Your task to perform on an android device: read, delete, or share a saved page in the chrome app Image 0: 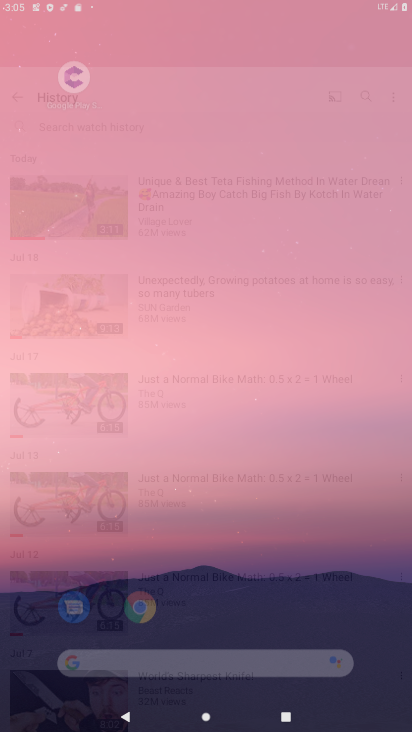
Step 0: click (354, 169)
Your task to perform on an android device: read, delete, or share a saved page in the chrome app Image 1: 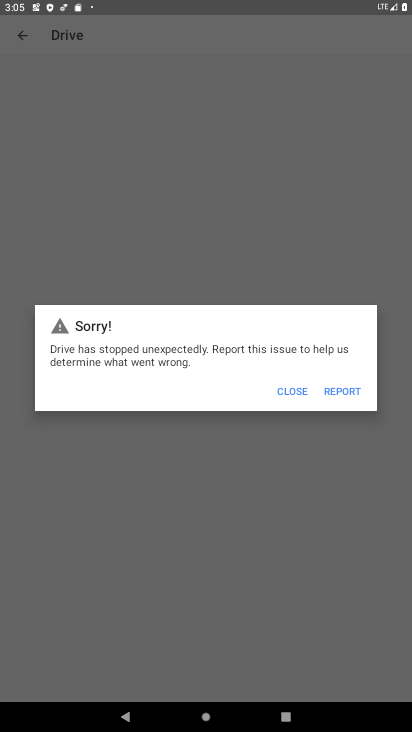
Step 1: press home button
Your task to perform on an android device: read, delete, or share a saved page in the chrome app Image 2: 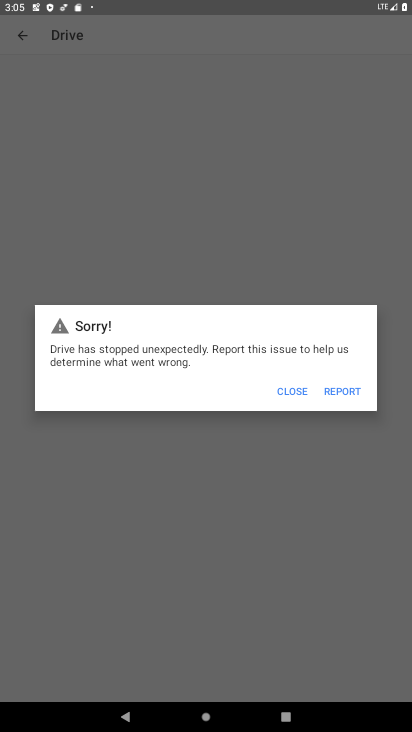
Step 2: press home button
Your task to perform on an android device: read, delete, or share a saved page in the chrome app Image 3: 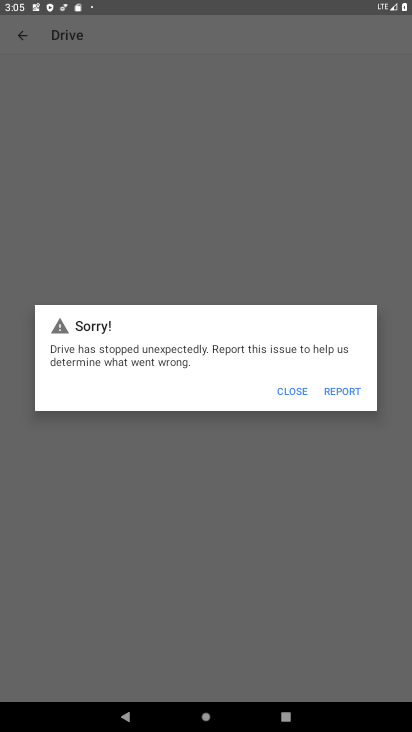
Step 3: drag from (254, 347) to (306, 184)
Your task to perform on an android device: read, delete, or share a saved page in the chrome app Image 4: 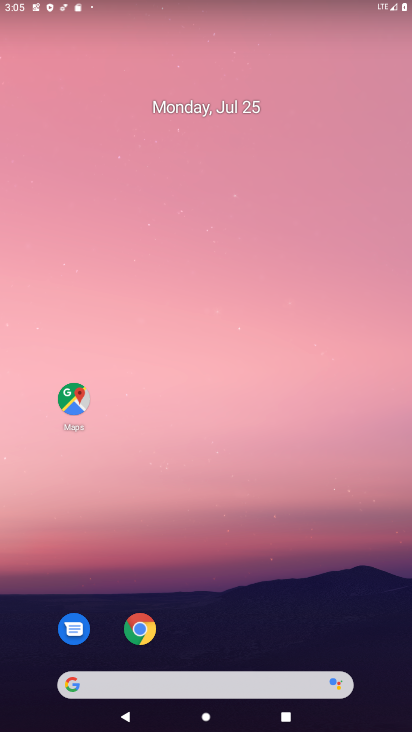
Step 4: drag from (172, 331) to (197, 28)
Your task to perform on an android device: read, delete, or share a saved page in the chrome app Image 5: 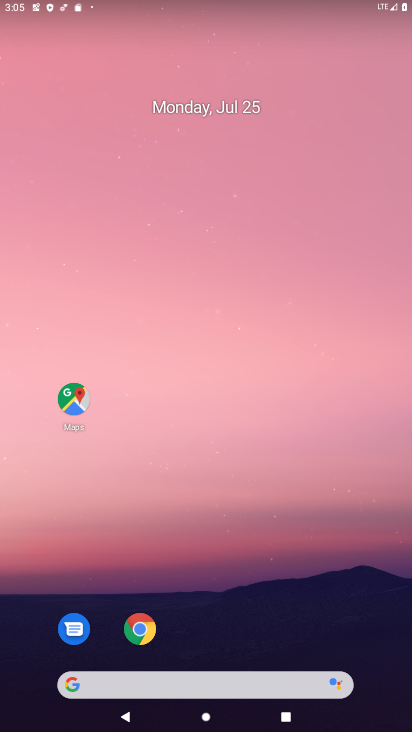
Step 5: drag from (198, 640) to (290, 18)
Your task to perform on an android device: read, delete, or share a saved page in the chrome app Image 6: 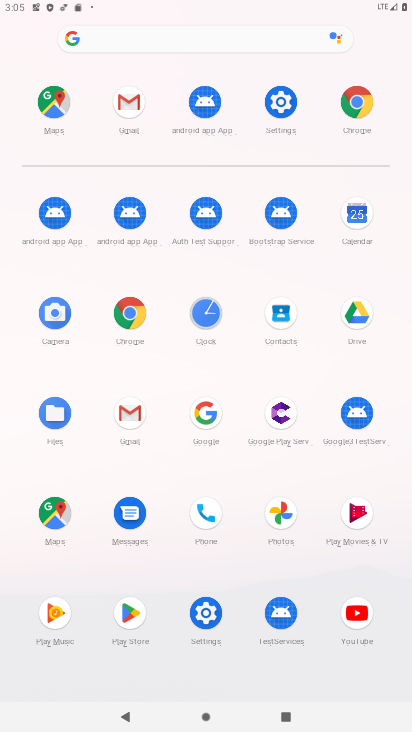
Step 6: click (128, 312)
Your task to perform on an android device: read, delete, or share a saved page in the chrome app Image 7: 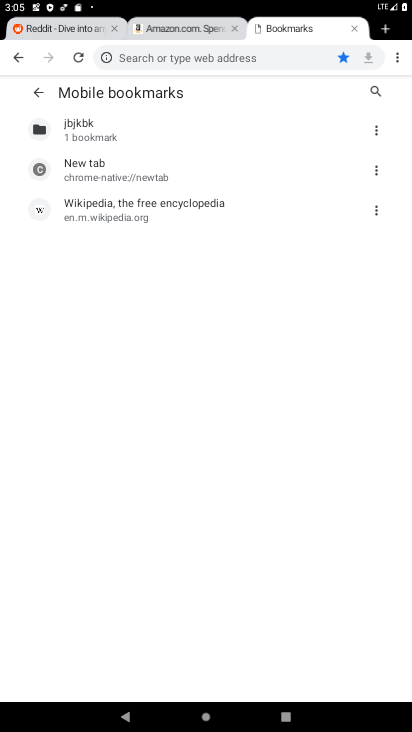
Step 7: drag from (395, 56) to (297, 211)
Your task to perform on an android device: read, delete, or share a saved page in the chrome app Image 8: 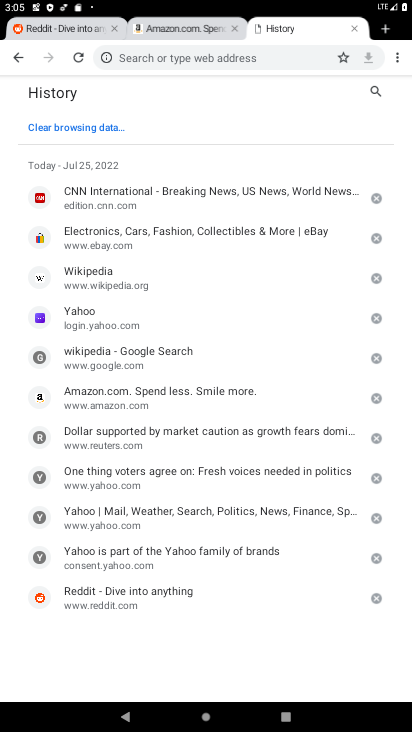
Step 8: drag from (190, 337) to (190, 192)
Your task to perform on an android device: read, delete, or share a saved page in the chrome app Image 9: 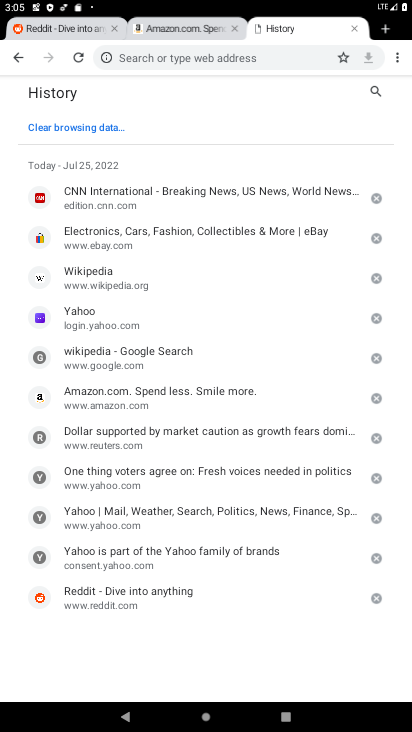
Step 9: drag from (394, 58) to (304, 155)
Your task to perform on an android device: read, delete, or share a saved page in the chrome app Image 10: 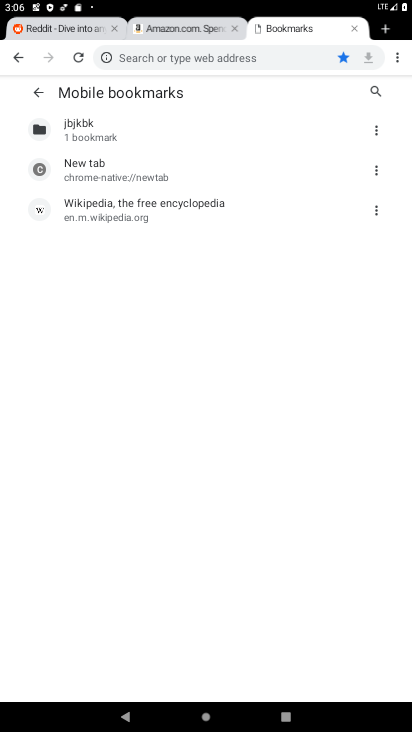
Step 10: click (121, 165)
Your task to perform on an android device: read, delete, or share a saved page in the chrome app Image 11: 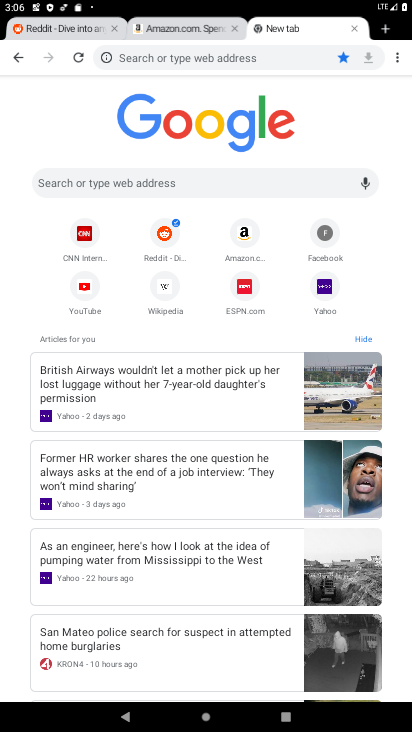
Step 11: task complete